Your task to perform on an android device: set the stopwatch Image 0: 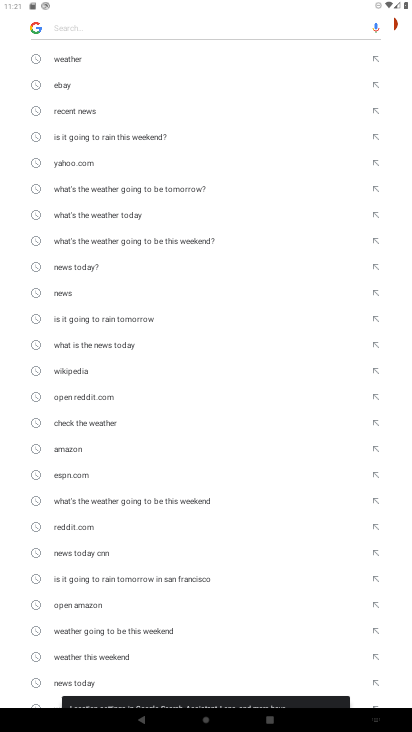
Step 0: press home button
Your task to perform on an android device: set the stopwatch Image 1: 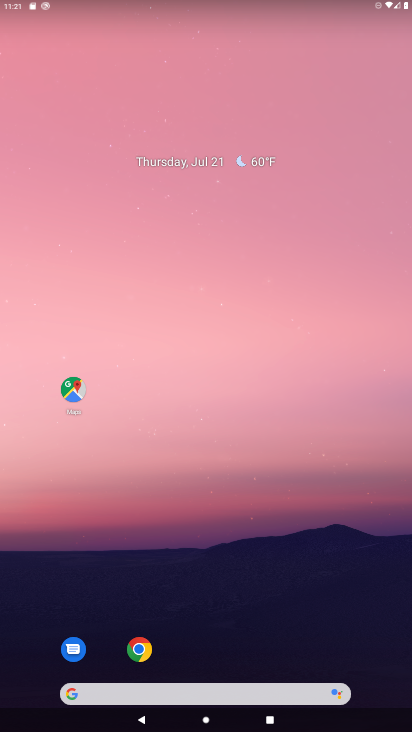
Step 1: drag from (379, 637) to (337, 64)
Your task to perform on an android device: set the stopwatch Image 2: 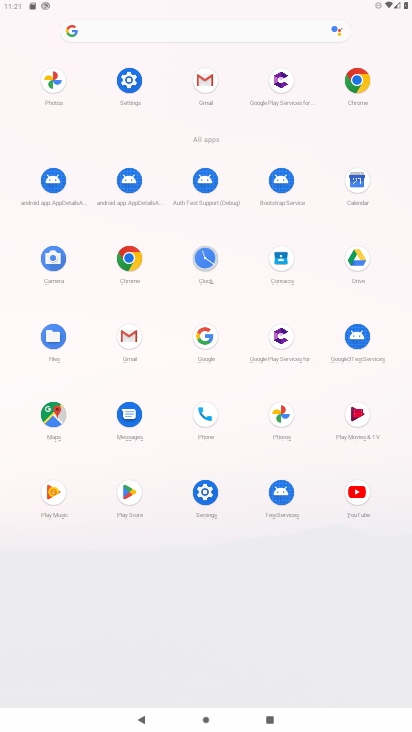
Step 2: click (210, 254)
Your task to perform on an android device: set the stopwatch Image 3: 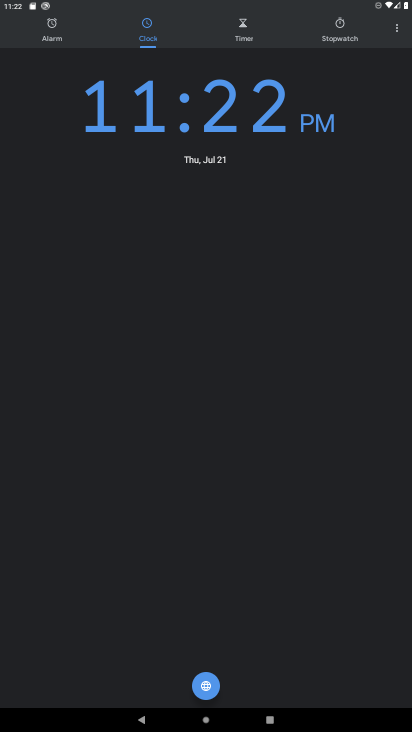
Step 3: click (396, 24)
Your task to perform on an android device: set the stopwatch Image 4: 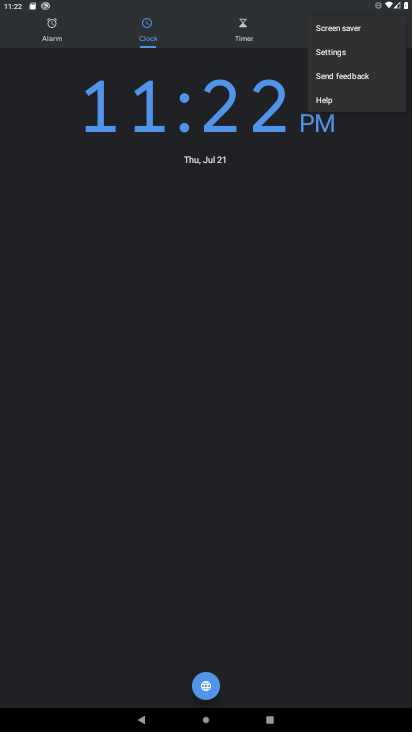
Step 4: click (230, 255)
Your task to perform on an android device: set the stopwatch Image 5: 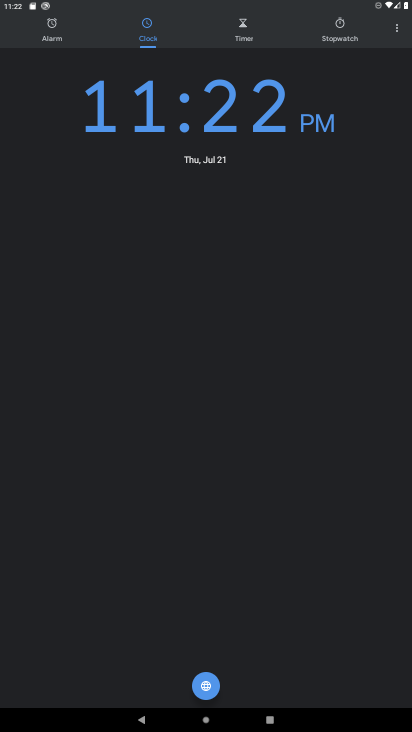
Step 5: click (334, 35)
Your task to perform on an android device: set the stopwatch Image 6: 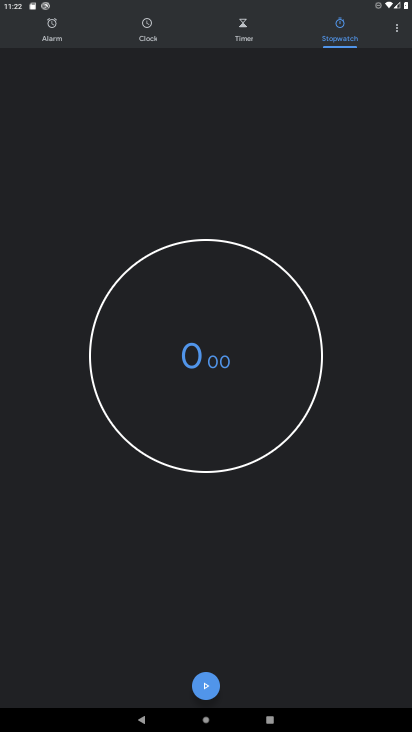
Step 6: click (203, 682)
Your task to perform on an android device: set the stopwatch Image 7: 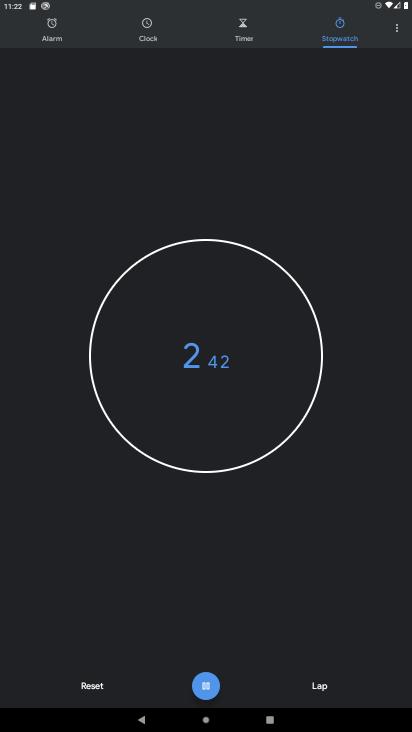
Step 7: task complete